Your task to perform on an android device: Go to wifi settings Image 0: 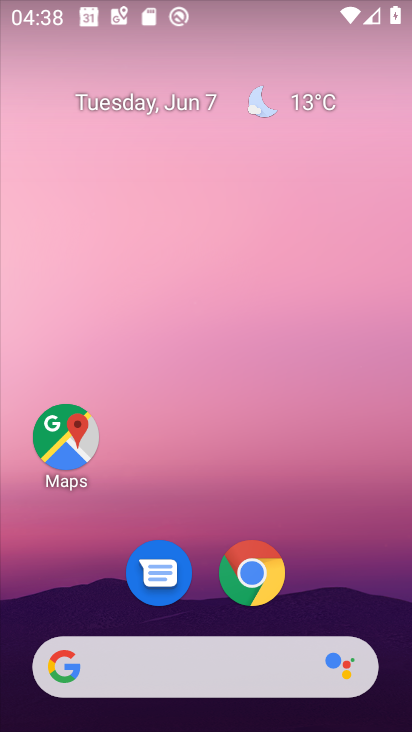
Step 0: press home button
Your task to perform on an android device: Go to wifi settings Image 1: 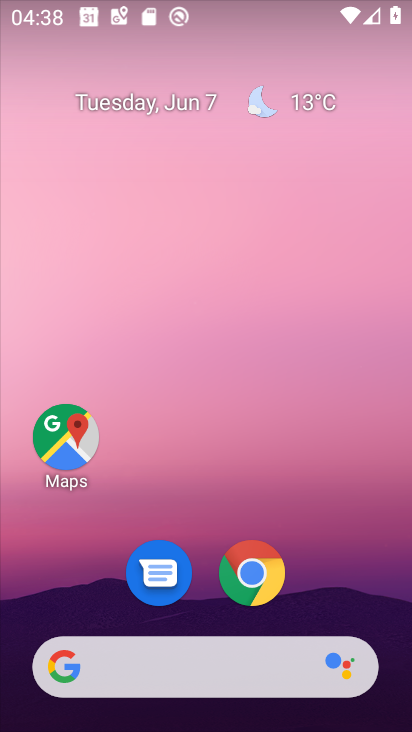
Step 1: drag from (324, 14) to (268, 557)
Your task to perform on an android device: Go to wifi settings Image 2: 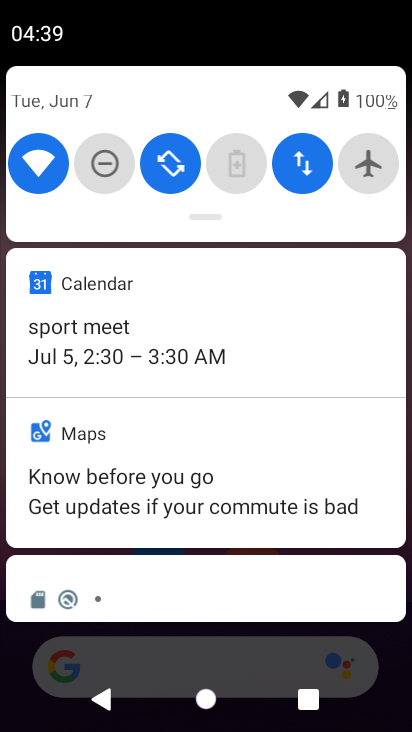
Step 2: click (23, 165)
Your task to perform on an android device: Go to wifi settings Image 3: 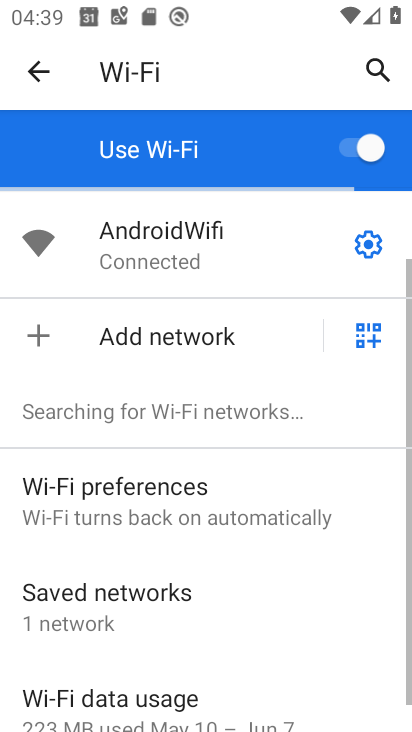
Step 3: task complete